Your task to perform on an android device: What's the weather going to be this weekend? Image 0: 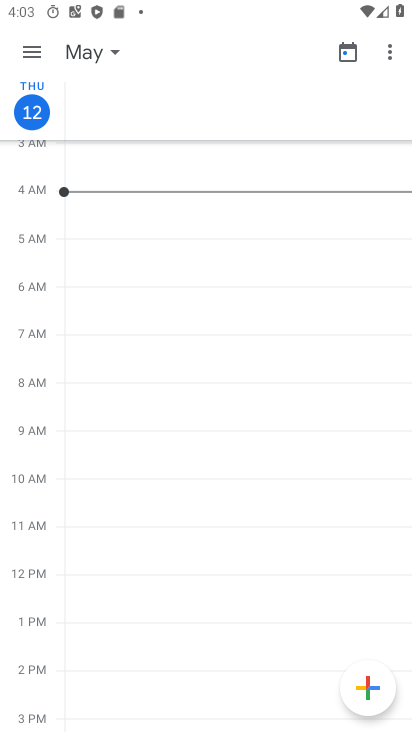
Step 0: press home button
Your task to perform on an android device: What's the weather going to be this weekend? Image 1: 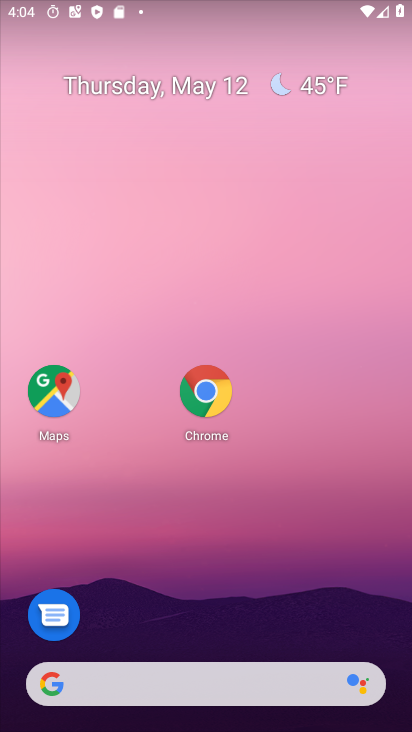
Step 1: drag from (214, 613) to (261, 99)
Your task to perform on an android device: What's the weather going to be this weekend? Image 2: 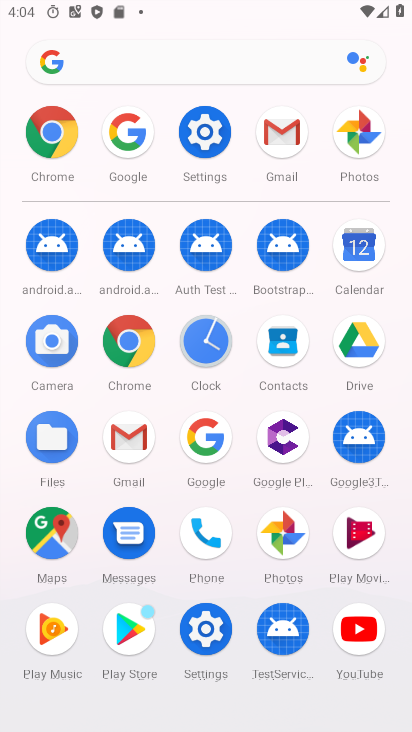
Step 2: click (206, 441)
Your task to perform on an android device: What's the weather going to be this weekend? Image 3: 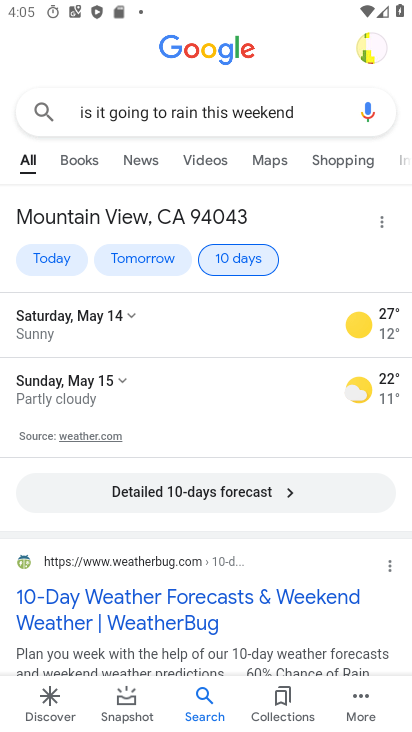
Step 3: click (320, 115)
Your task to perform on an android device: What's the weather going to be this weekend? Image 4: 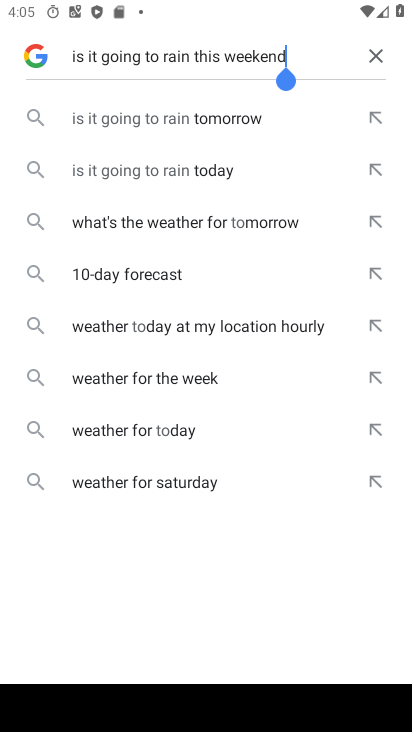
Step 4: click (367, 57)
Your task to perform on an android device: What's the weather going to be this weekend? Image 5: 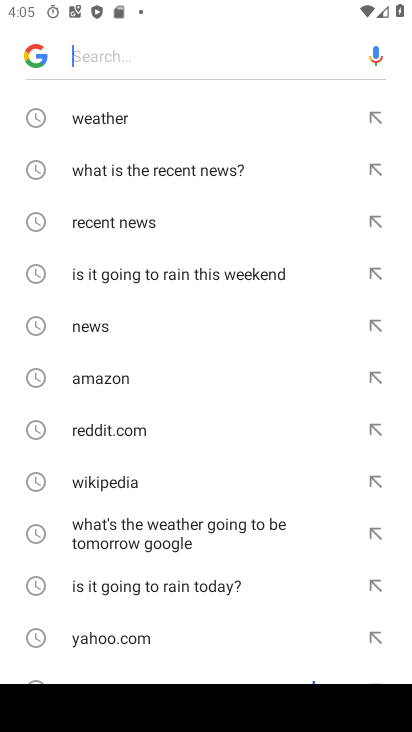
Step 5: type "weather going to be this weekend"
Your task to perform on an android device: What's the weather going to be this weekend? Image 6: 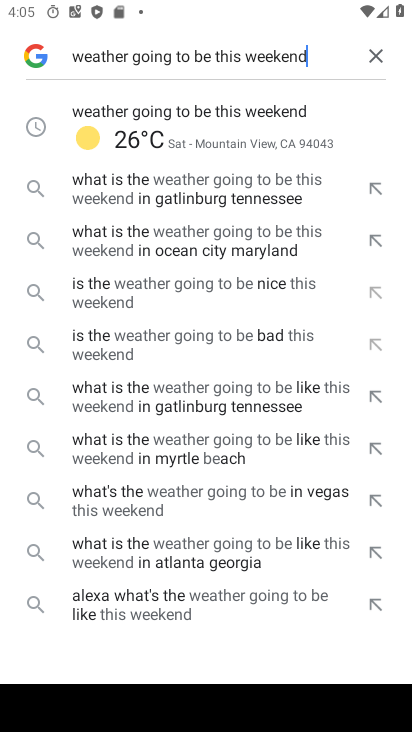
Step 6: click (199, 110)
Your task to perform on an android device: What's the weather going to be this weekend? Image 7: 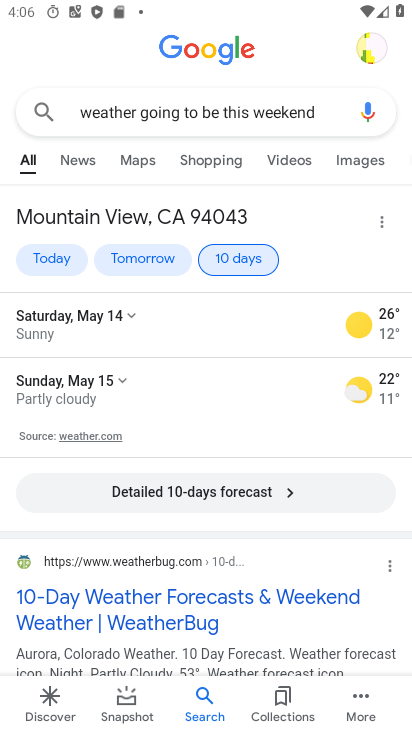
Step 7: task complete